Your task to perform on an android device: toggle location history Image 0: 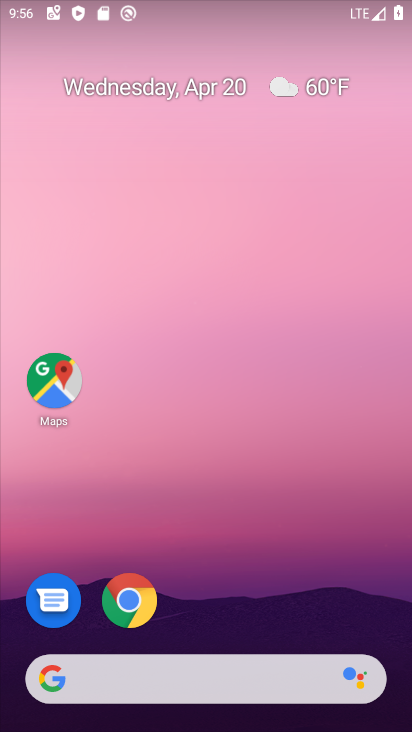
Step 0: click (213, 364)
Your task to perform on an android device: toggle location history Image 1: 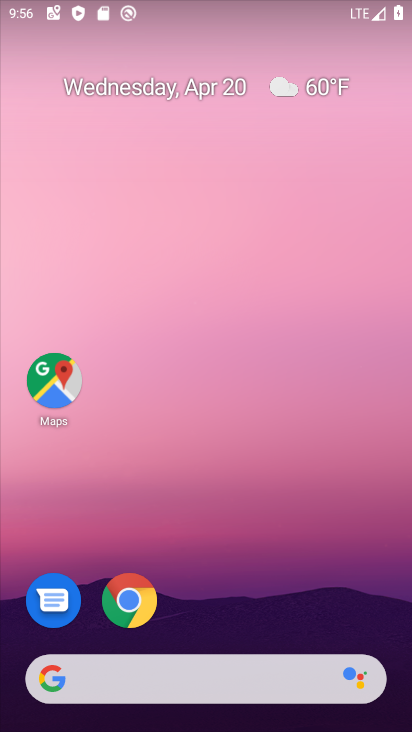
Step 1: drag from (190, 606) to (285, 148)
Your task to perform on an android device: toggle location history Image 2: 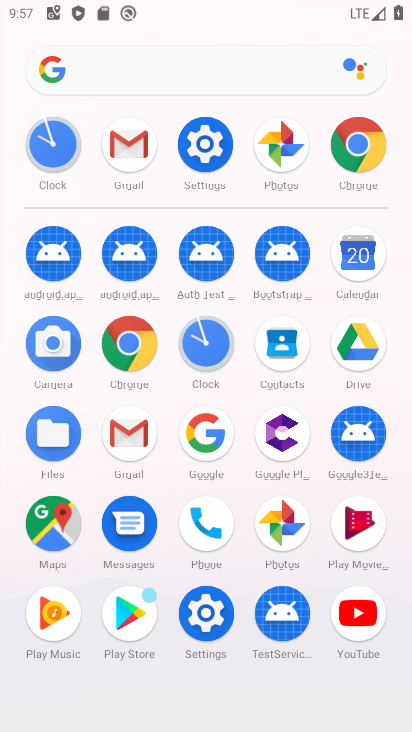
Step 2: click (202, 159)
Your task to perform on an android device: toggle location history Image 3: 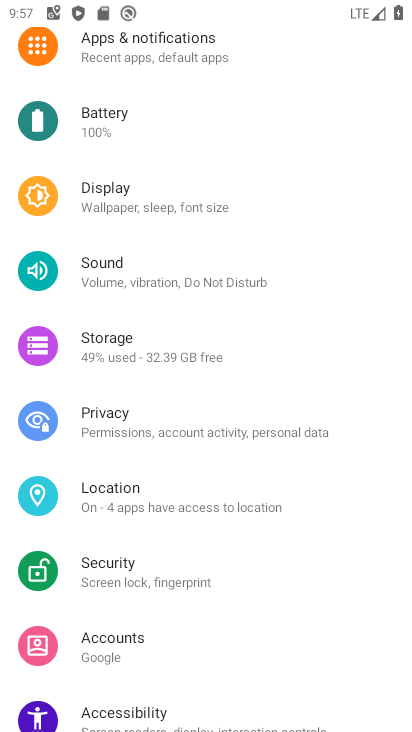
Step 3: click (98, 484)
Your task to perform on an android device: toggle location history Image 4: 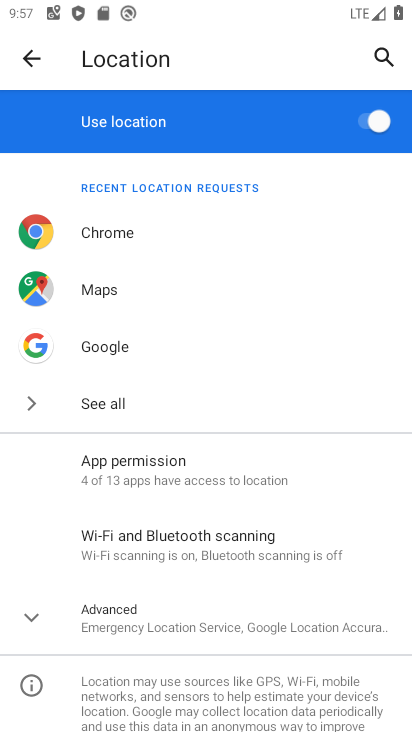
Step 4: click (141, 630)
Your task to perform on an android device: toggle location history Image 5: 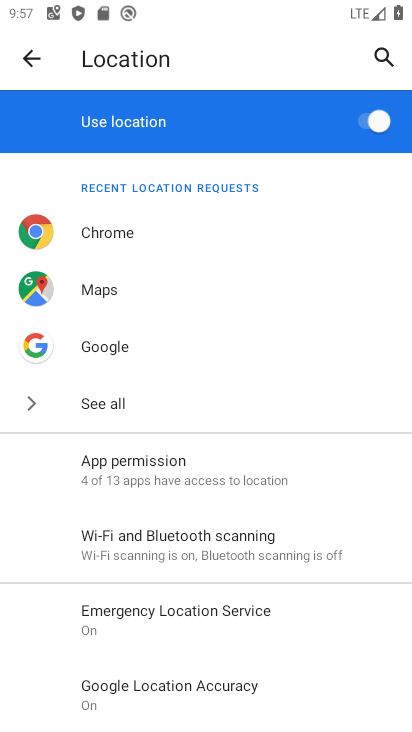
Step 5: drag from (141, 630) to (199, 132)
Your task to perform on an android device: toggle location history Image 6: 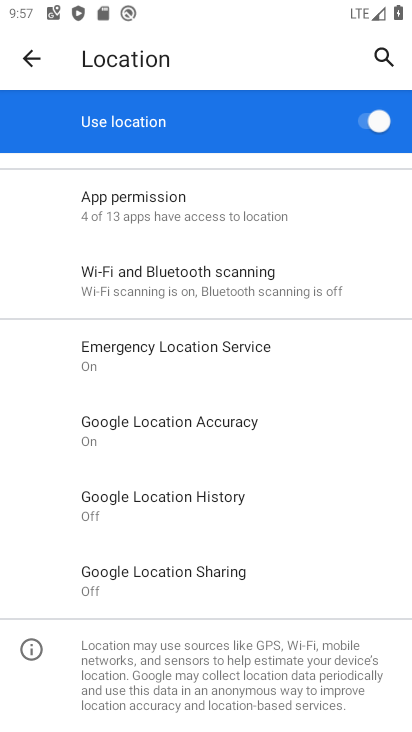
Step 6: click (236, 505)
Your task to perform on an android device: toggle location history Image 7: 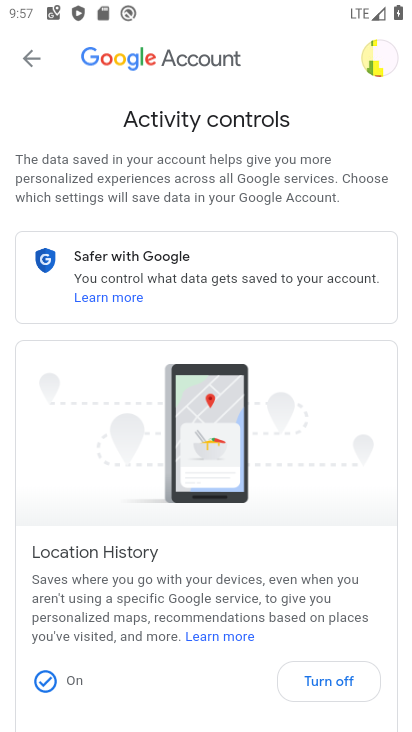
Step 7: click (312, 675)
Your task to perform on an android device: toggle location history Image 8: 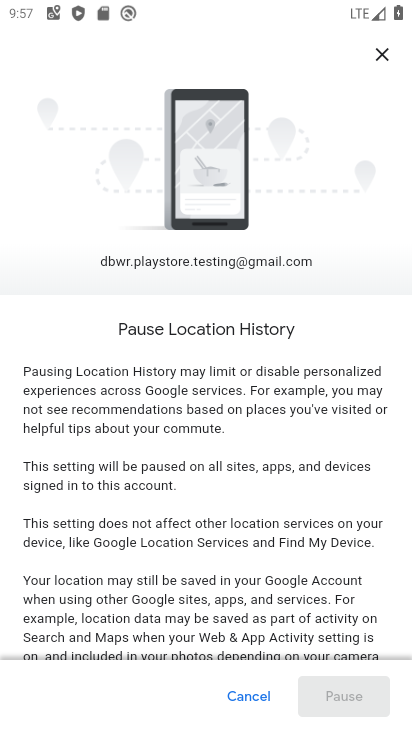
Step 8: drag from (180, 590) to (233, 43)
Your task to perform on an android device: toggle location history Image 9: 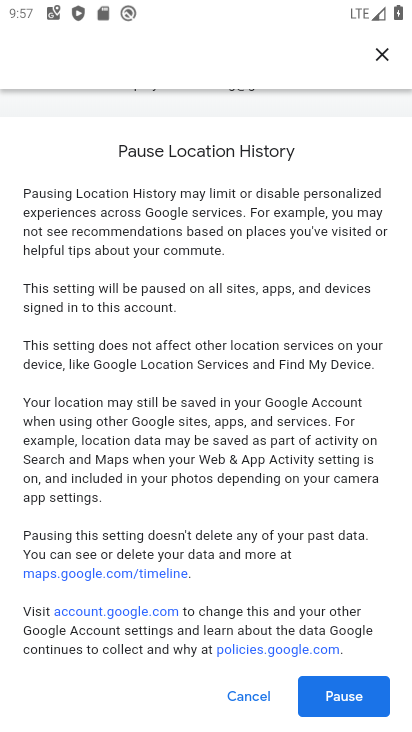
Step 9: drag from (178, 636) to (208, 80)
Your task to perform on an android device: toggle location history Image 10: 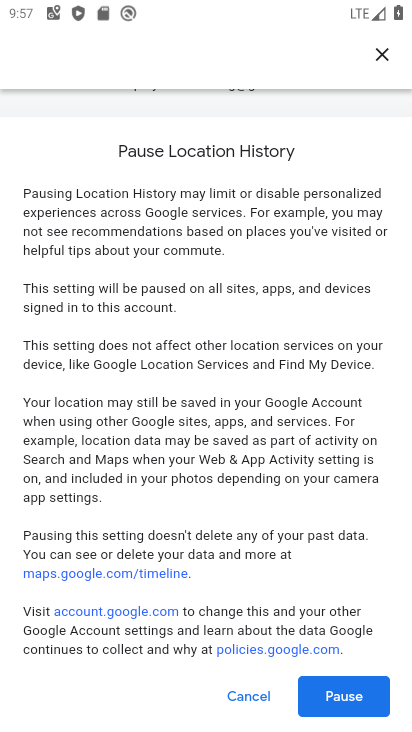
Step 10: click (334, 695)
Your task to perform on an android device: toggle location history Image 11: 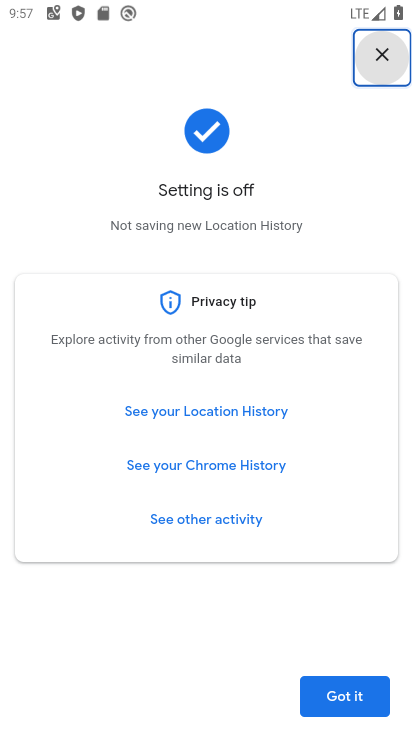
Step 11: click (358, 686)
Your task to perform on an android device: toggle location history Image 12: 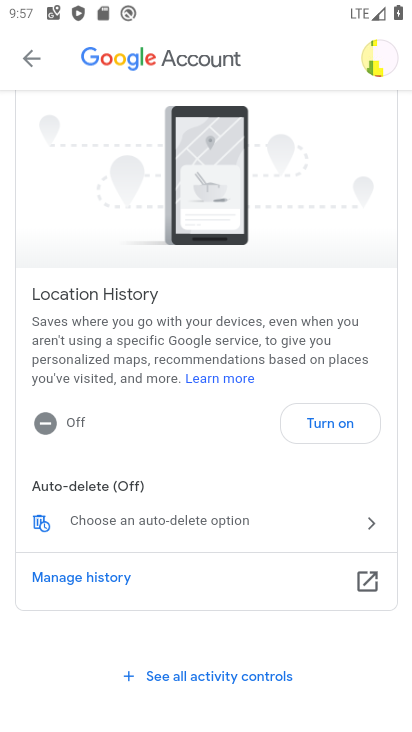
Step 12: task complete